Your task to perform on an android device: snooze an email in the gmail app Image 0: 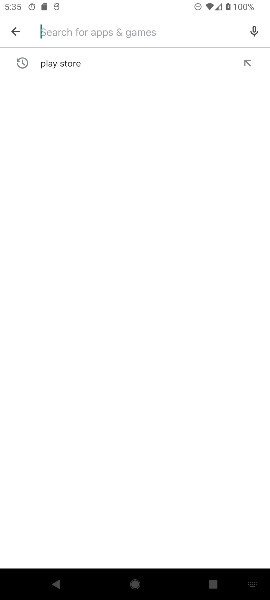
Step 0: click (17, 29)
Your task to perform on an android device: snooze an email in the gmail app Image 1: 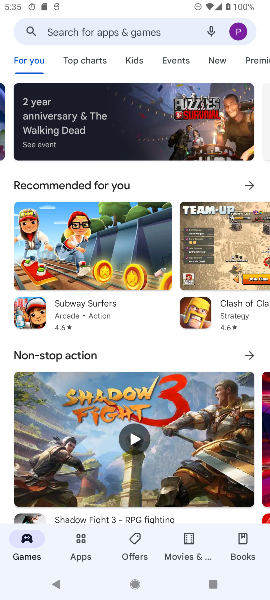
Step 1: press back button
Your task to perform on an android device: snooze an email in the gmail app Image 2: 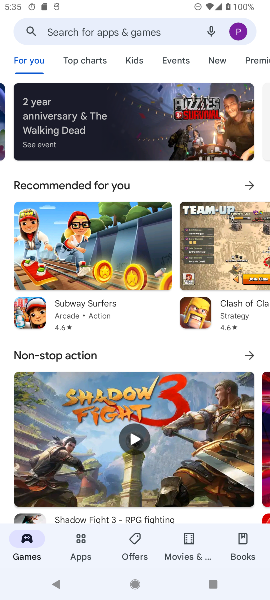
Step 2: press back button
Your task to perform on an android device: snooze an email in the gmail app Image 3: 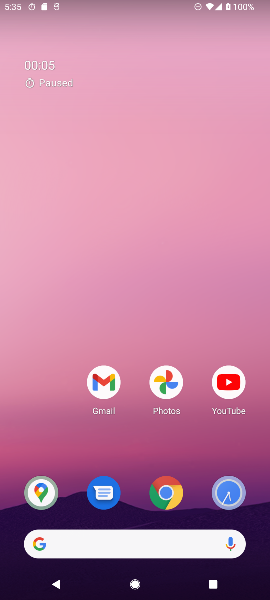
Step 3: press back button
Your task to perform on an android device: snooze an email in the gmail app Image 4: 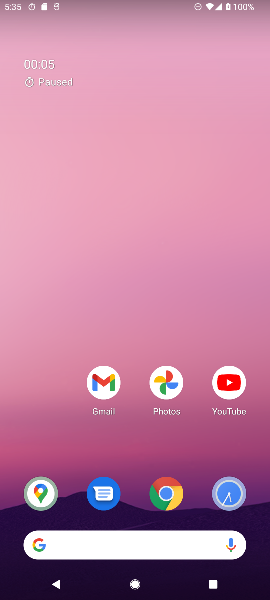
Step 4: press back button
Your task to perform on an android device: snooze an email in the gmail app Image 5: 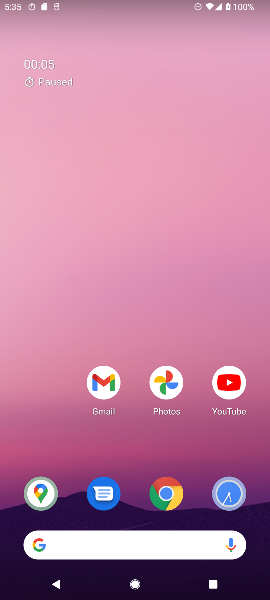
Step 5: drag from (102, 245) to (66, 53)
Your task to perform on an android device: snooze an email in the gmail app Image 6: 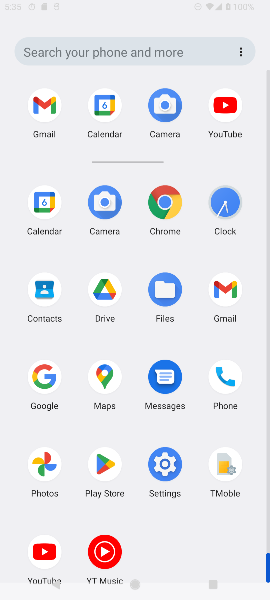
Step 6: drag from (141, 415) to (102, 85)
Your task to perform on an android device: snooze an email in the gmail app Image 7: 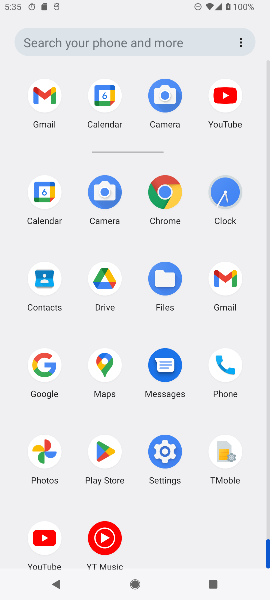
Step 7: drag from (68, 329) to (45, 164)
Your task to perform on an android device: snooze an email in the gmail app Image 8: 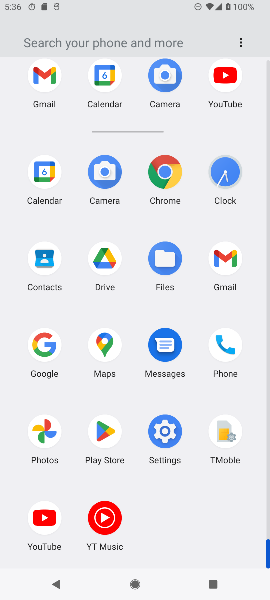
Step 8: click (226, 256)
Your task to perform on an android device: snooze an email in the gmail app Image 9: 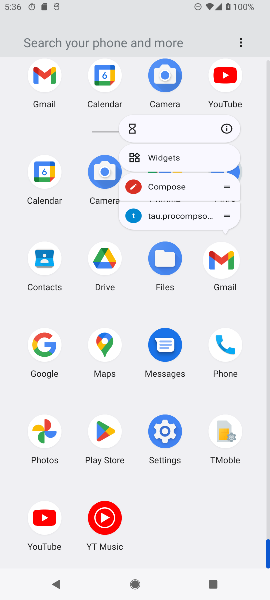
Step 9: click (221, 258)
Your task to perform on an android device: snooze an email in the gmail app Image 10: 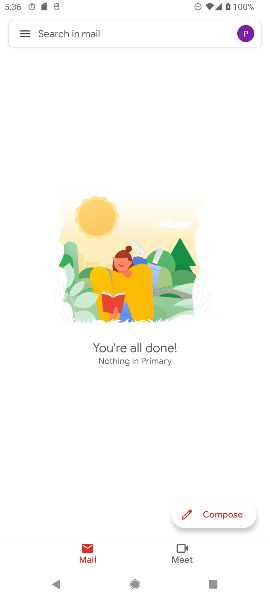
Step 10: click (22, 36)
Your task to perform on an android device: snooze an email in the gmail app Image 11: 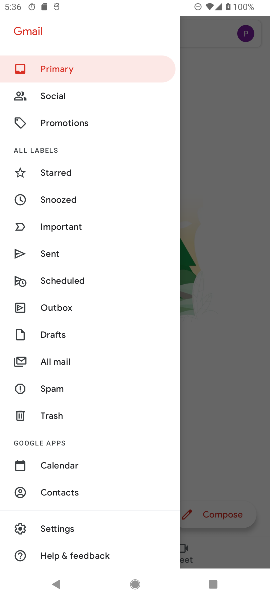
Step 11: click (53, 200)
Your task to perform on an android device: snooze an email in the gmail app Image 12: 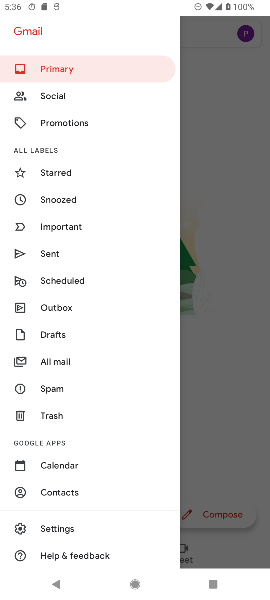
Step 12: click (53, 200)
Your task to perform on an android device: snooze an email in the gmail app Image 13: 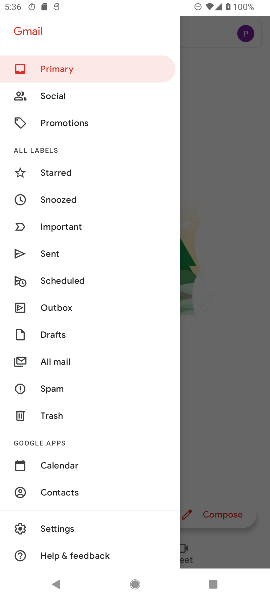
Step 13: click (56, 204)
Your task to perform on an android device: snooze an email in the gmail app Image 14: 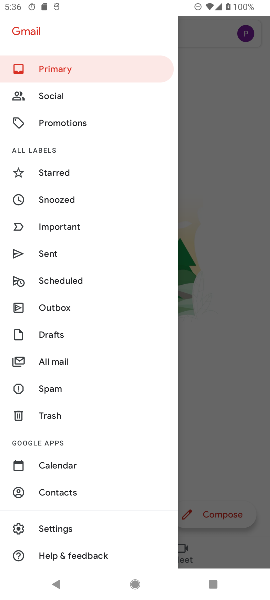
Step 14: click (57, 203)
Your task to perform on an android device: snooze an email in the gmail app Image 15: 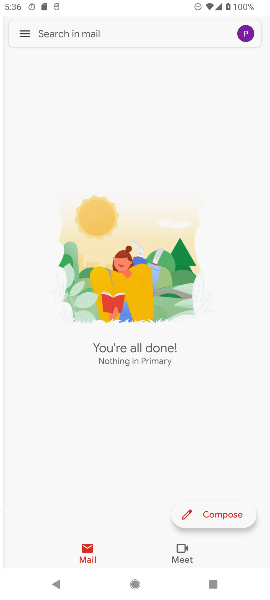
Step 15: click (57, 203)
Your task to perform on an android device: snooze an email in the gmail app Image 16: 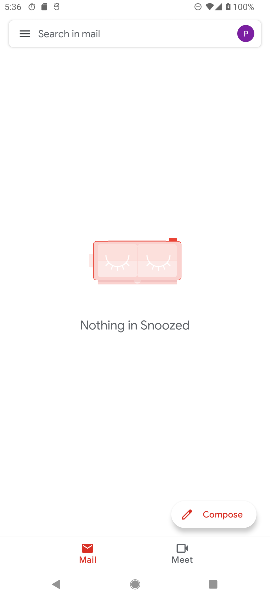
Step 16: task complete